Your task to perform on an android device: Open notification settings Image 0: 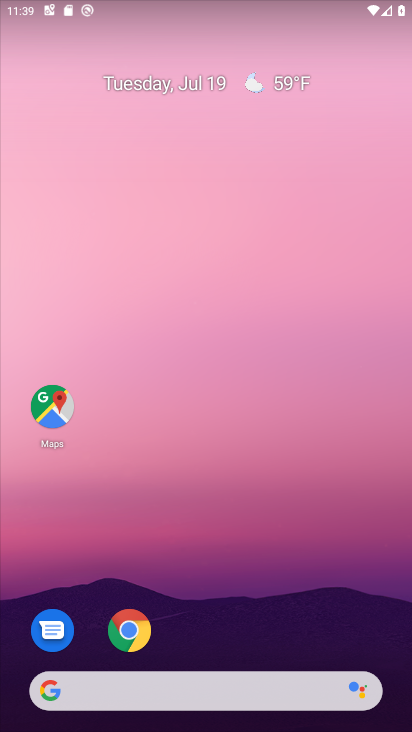
Step 0: drag from (382, 642) to (354, 196)
Your task to perform on an android device: Open notification settings Image 1: 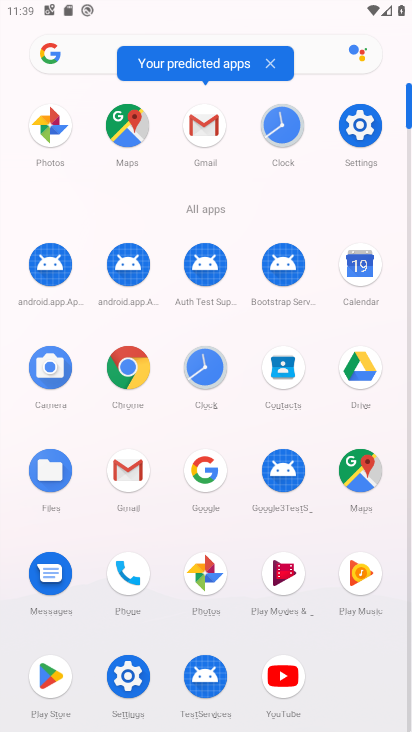
Step 1: click (127, 678)
Your task to perform on an android device: Open notification settings Image 2: 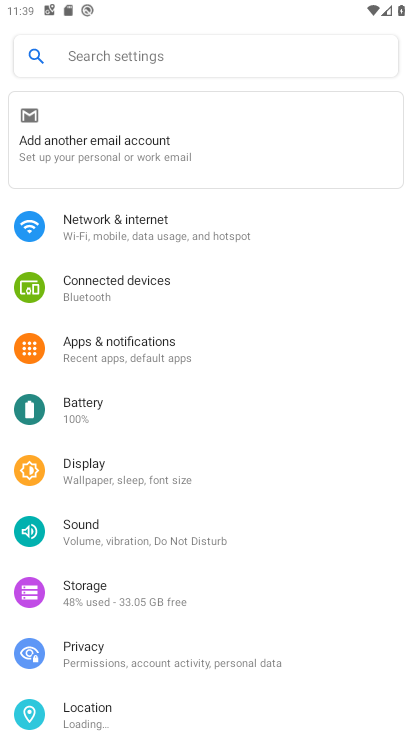
Step 2: click (117, 346)
Your task to perform on an android device: Open notification settings Image 3: 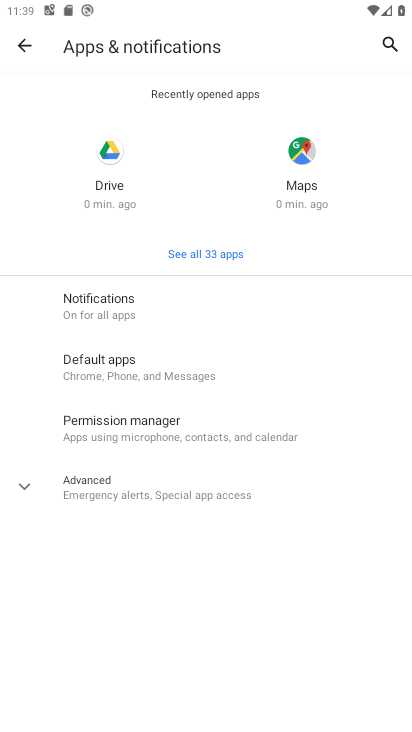
Step 3: click (101, 299)
Your task to perform on an android device: Open notification settings Image 4: 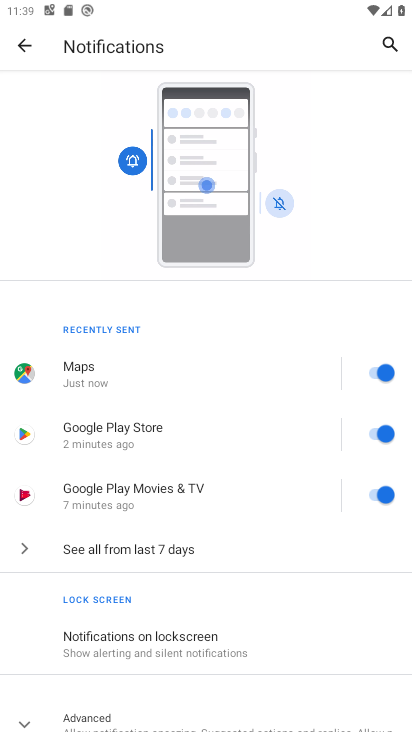
Step 4: drag from (279, 591) to (306, 172)
Your task to perform on an android device: Open notification settings Image 5: 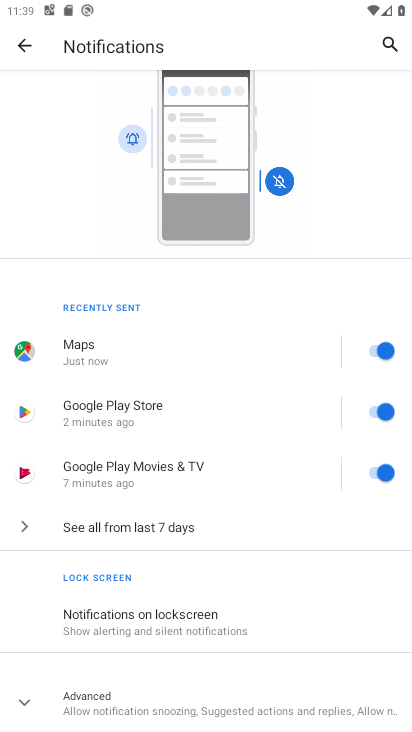
Step 5: click (24, 699)
Your task to perform on an android device: Open notification settings Image 6: 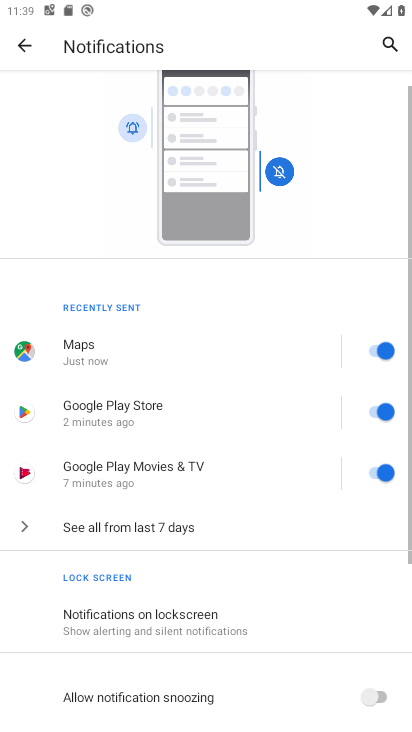
Step 6: task complete